Your task to perform on an android device: View the shopping cart on target. Add "macbook pro 15 inch" to the cart on target Image 0: 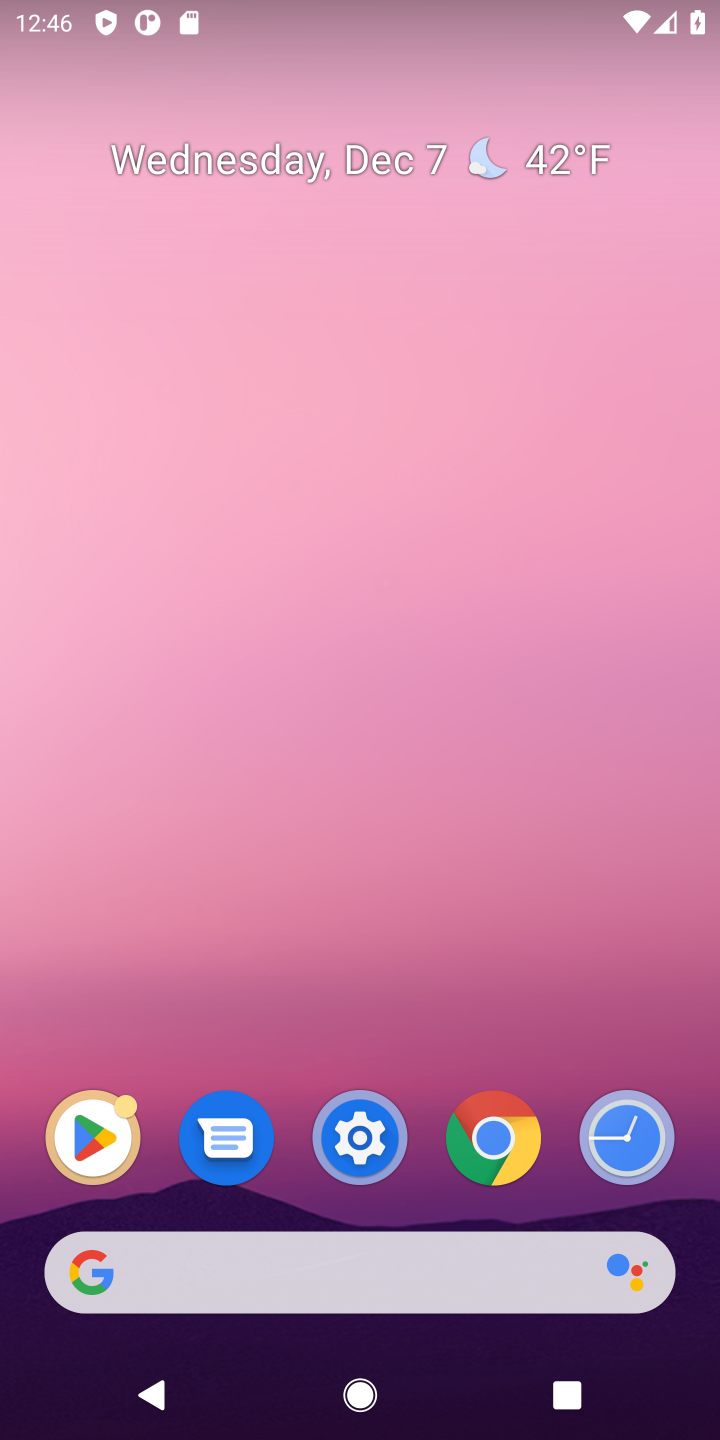
Step 0: click (244, 1289)
Your task to perform on an android device: View the shopping cart on target. Add "macbook pro 15 inch" to the cart on target Image 1: 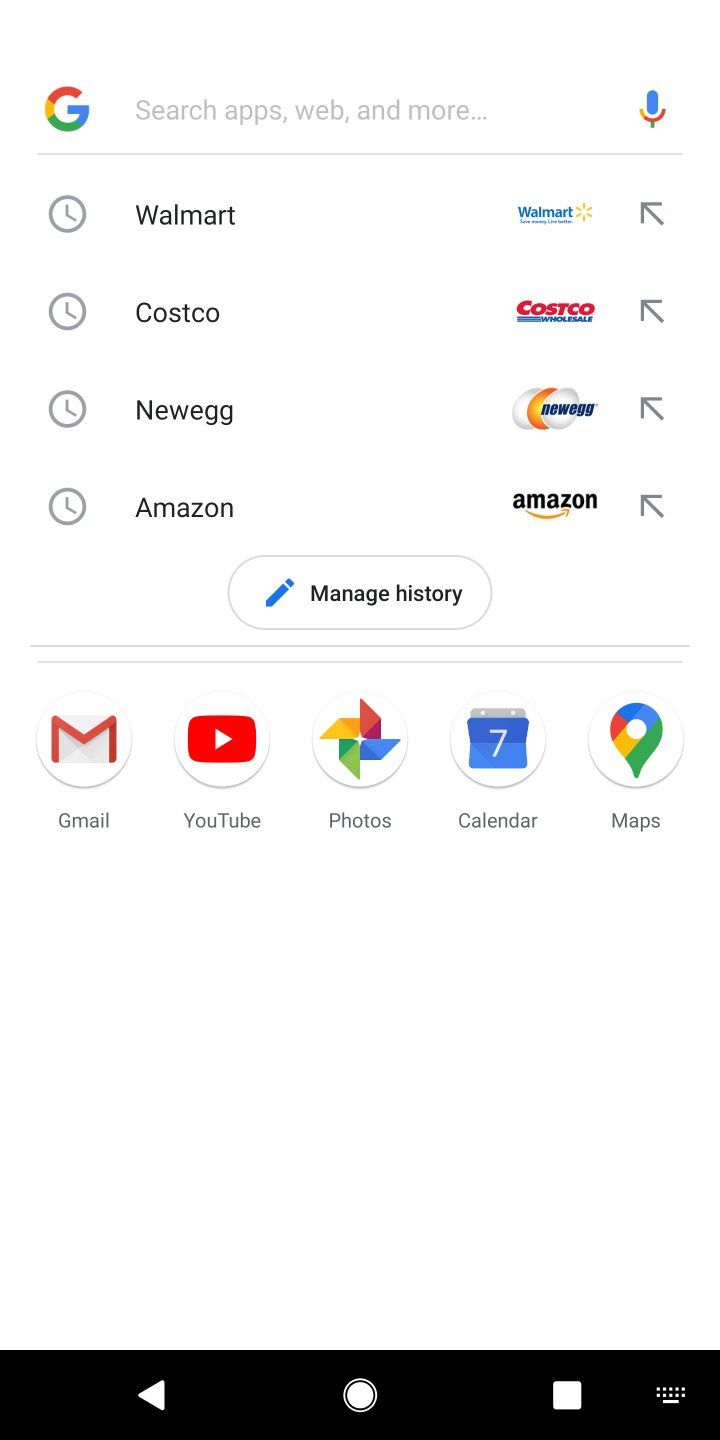
Step 1: type "target"
Your task to perform on an android device: View the shopping cart on target. Add "macbook pro 15 inch" to the cart on target Image 2: 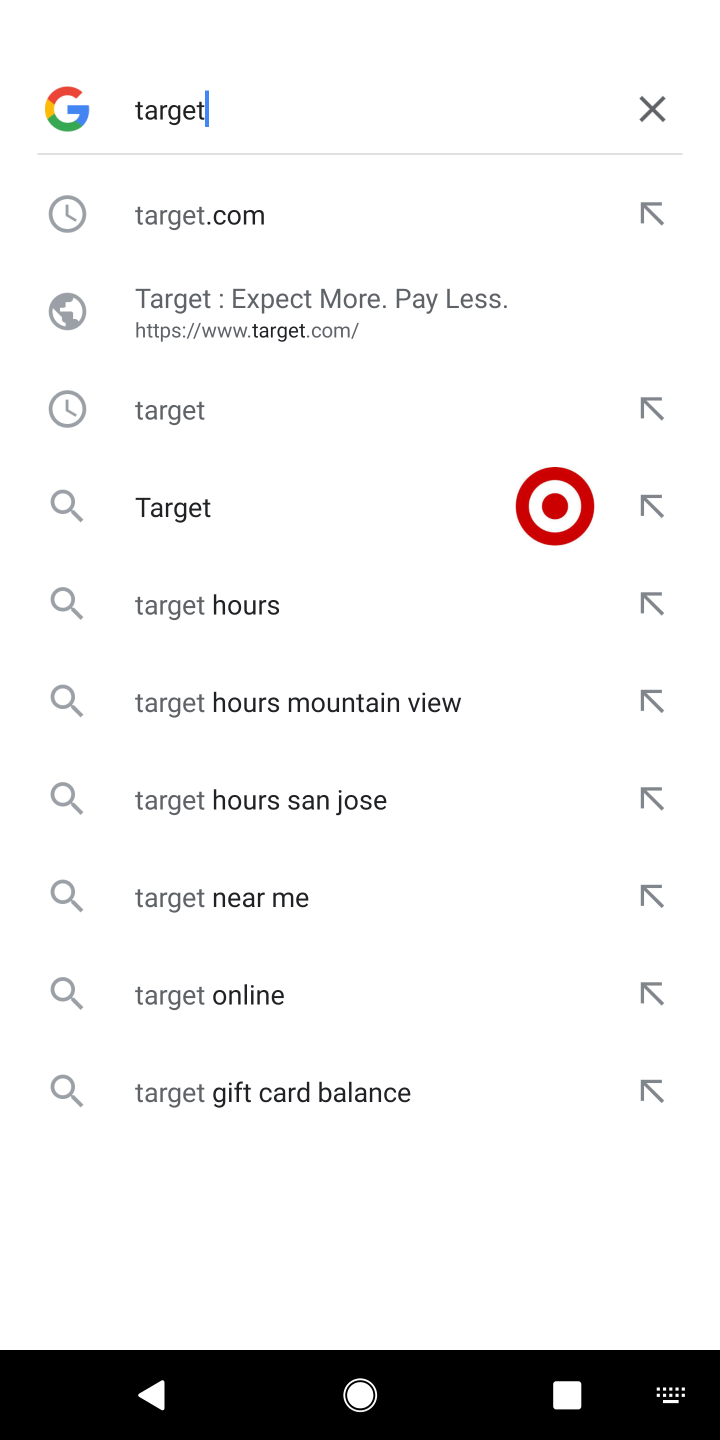
Step 2: type "]"
Your task to perform on an android device: View the shopping cart on target. Add "macbook pro 15 inch" to the cart on target Image 3: 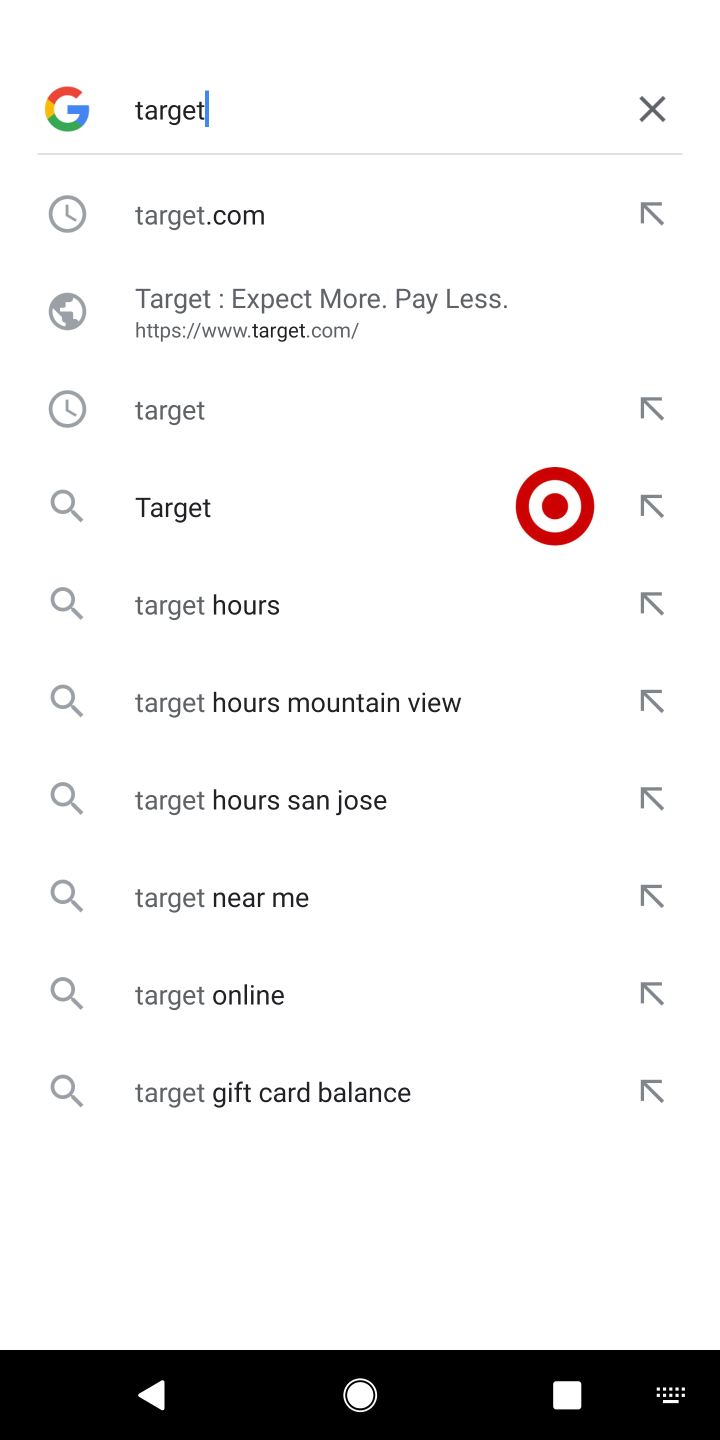
Step 3: click (337, 211)
Your task to perform on an android device: View the shopping cart on target. Add "macbook pro 15 inch" to the cart on target Image 4: 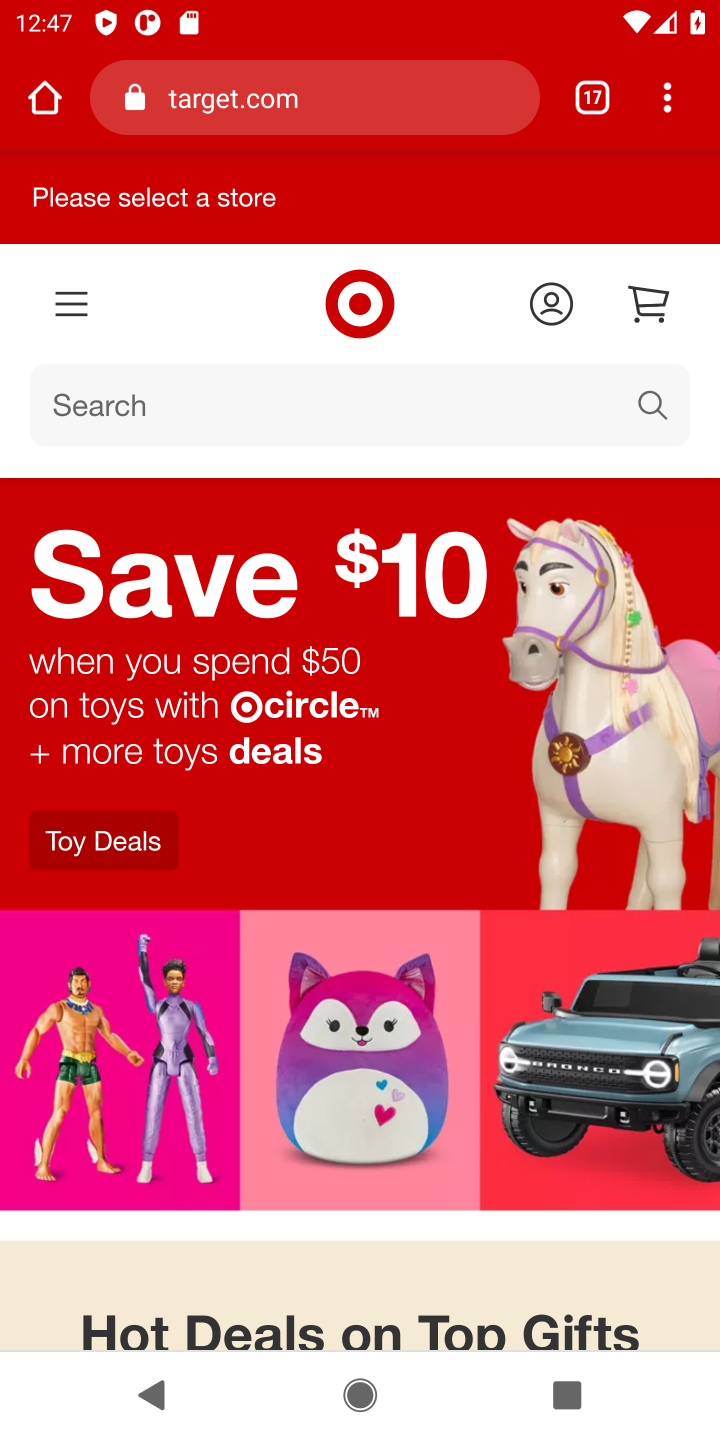
Step 4: click (226, 425)
Your task to perform on an android device: View the shopping cart on target. Add "macbook pro 15 inch" to the cart on target Image 5: 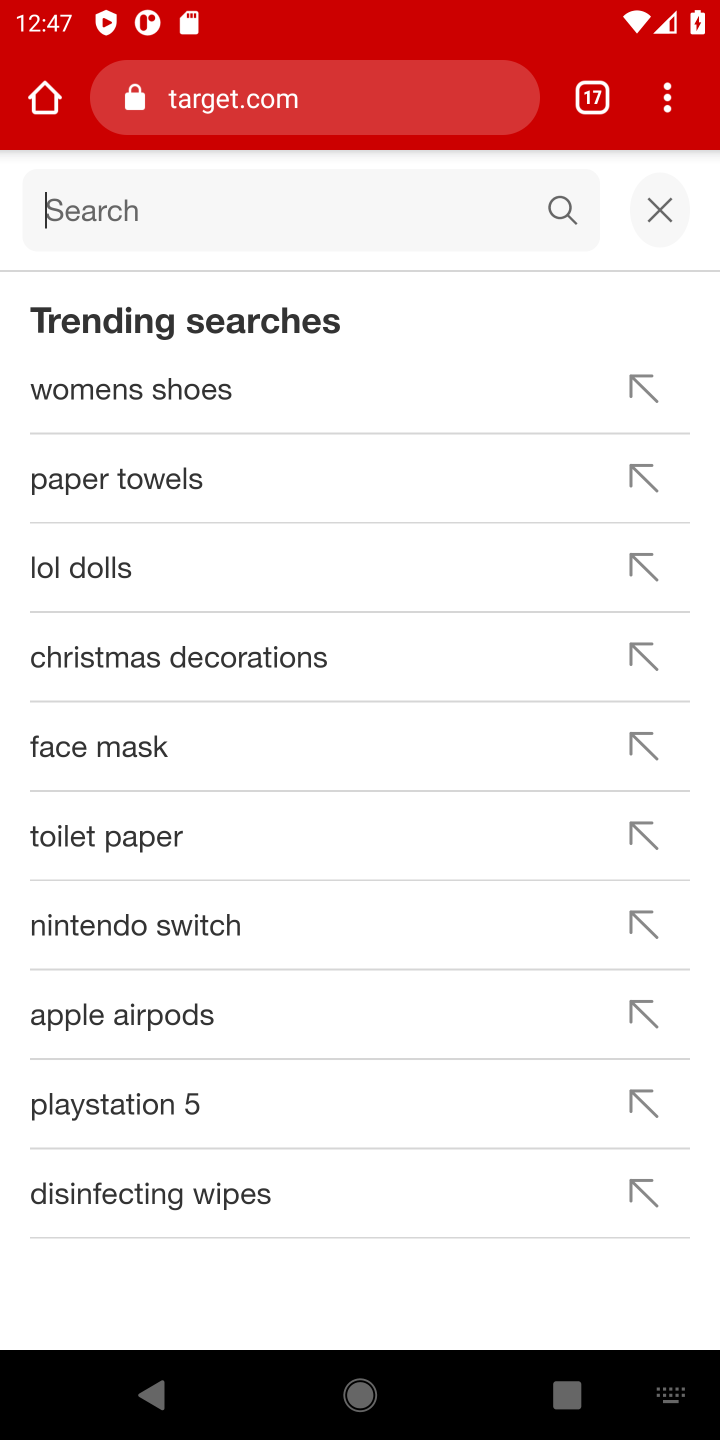
Step 5: type "macbook "
Your task to perform on an android device: View the shopping cart on target. Add "macbook pro 15 inch" to the cart on target Image 6: 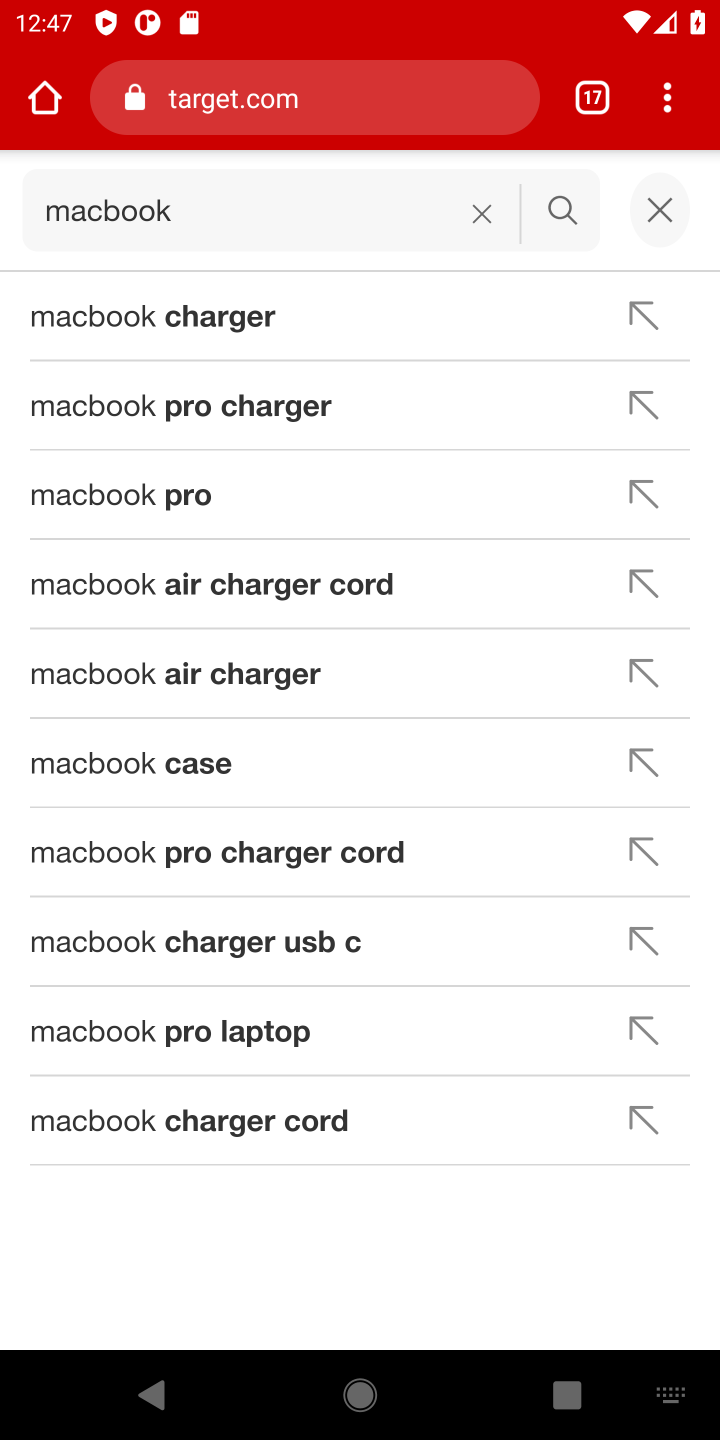
Step 6: click (132, 487)
Your task to perform on an android device: View the shopping cart on target. Add "macbook pro 15 inch" to the cart on target Image 7: 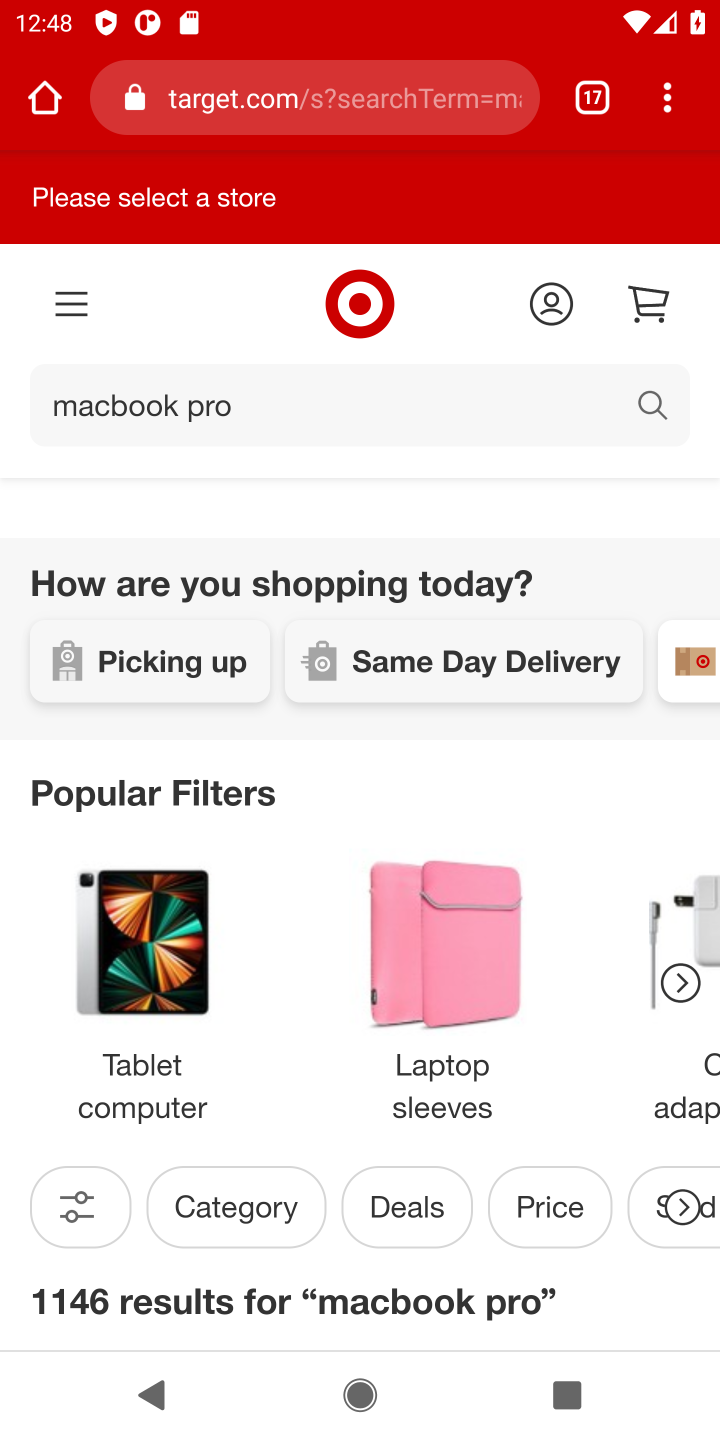
Step 7: task complete